Your task to perform on an android device: toggle sleep mode Image 0: 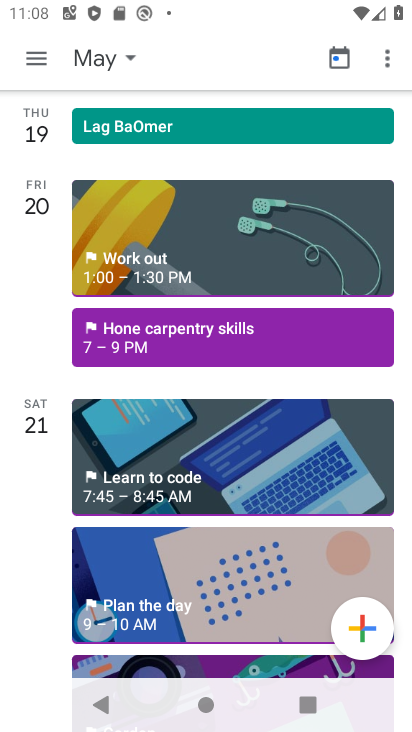
Step 0: press home button
Your task to perform on an android device: toggle sleep mode Image 1: 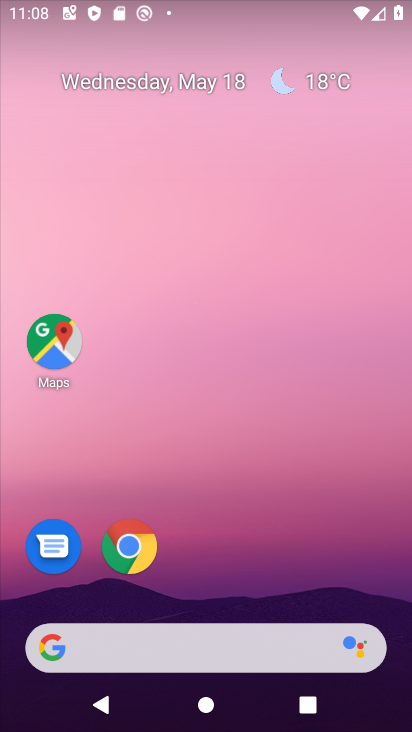
Step 1: drag from (227, 722) to (233, 125)
Your task to perform on an android device: toggle sleep mode Image 2: 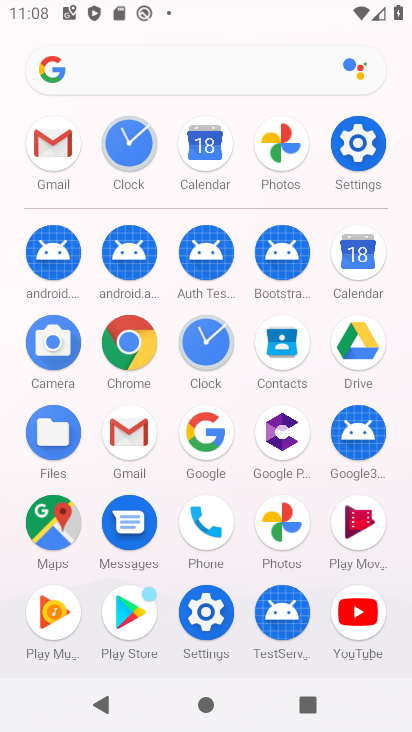
Step 2: click (362, 139)
Your task to perform on an android device: toggle sleep mode Image 3: 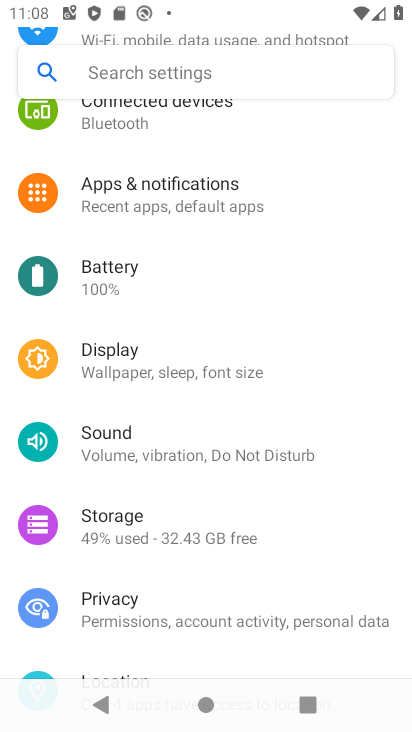
Step 3: task complete